Your task to perform on an android device: turn off smart reply in the gmail app Image 0: 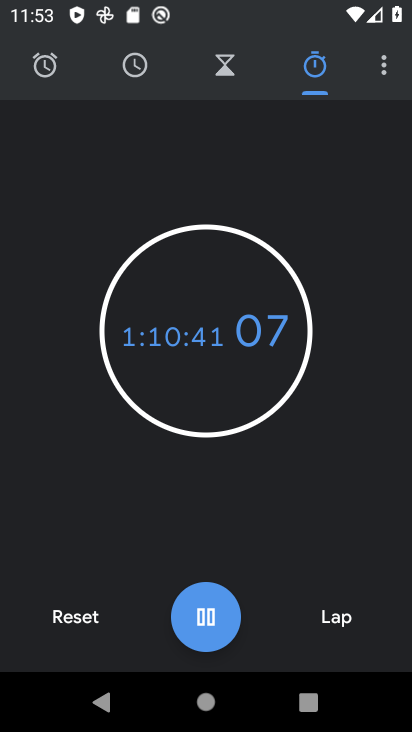
Step 0: press home button
Your task to perform on an android device: turn off smart reply in the gmail app Image 1: 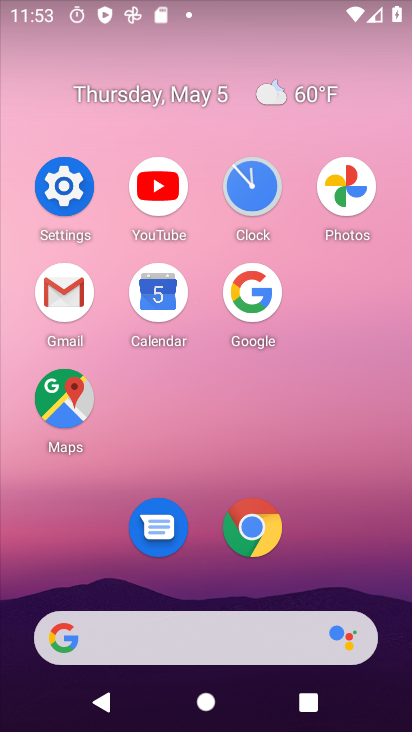
Step 1: click (72, 296)
Your task to perform on an android device: turn off smart reply in the gmail app Image 2: 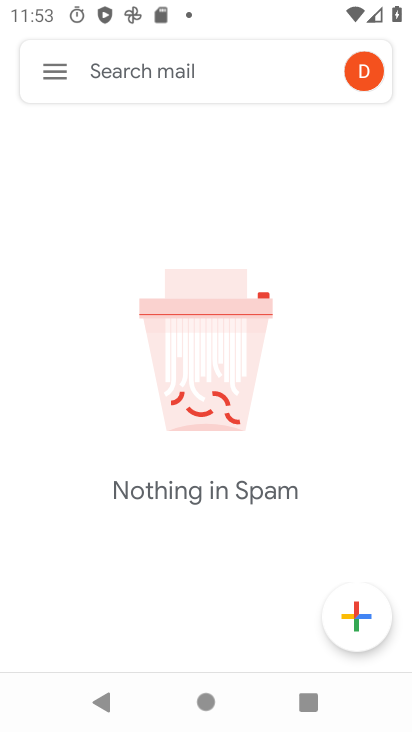
Step 2: click (58, 71)
Your task to perform on an android device: turn off smart reply in the gmail app Image 3: 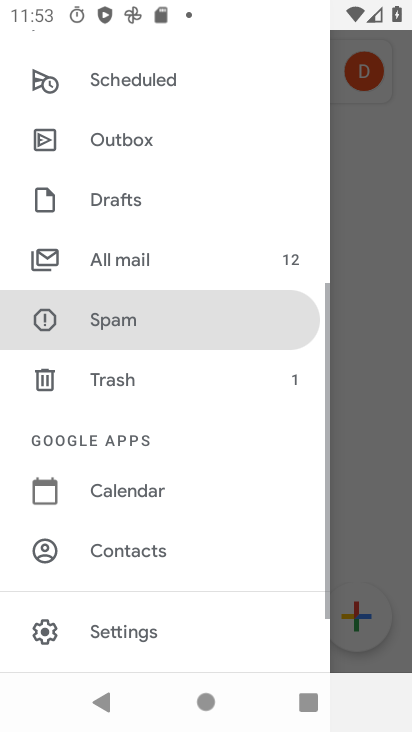
Step 3: drag from (234, 576) to (223, 188)
Your task to perform on an android device: turn off smart reply in the gmail app Image 4: 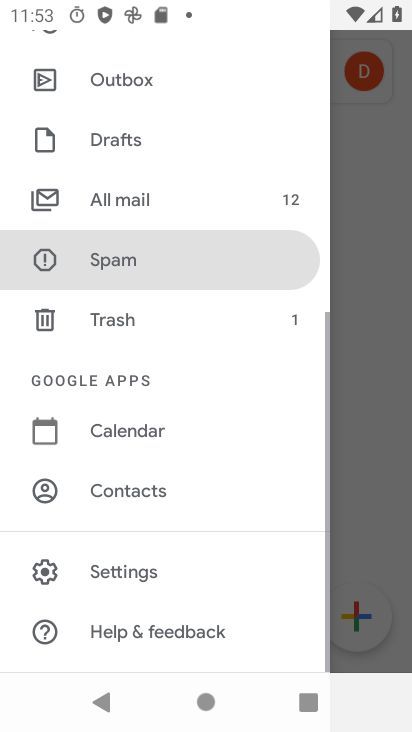
Step 4: click (147, 573)
Your task to perform on an android device: turn off smart reply in the gmail app Image 5: 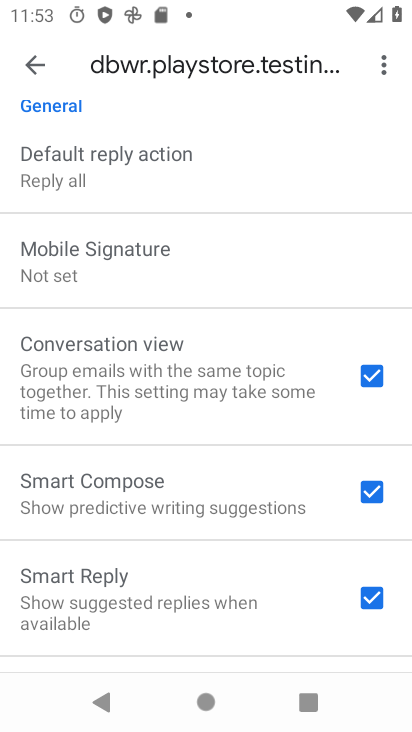
Step 5: click (377, 603)
Your task to perform on an android device: turn off smart reply in the gmail app Image 6: 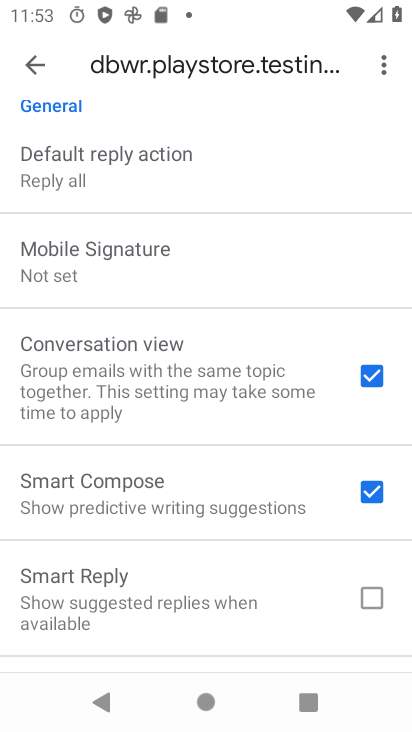
Step 6: task complete